Your task to perform on an android device: open app "Google Drive" (install if not already installed) Image 0: 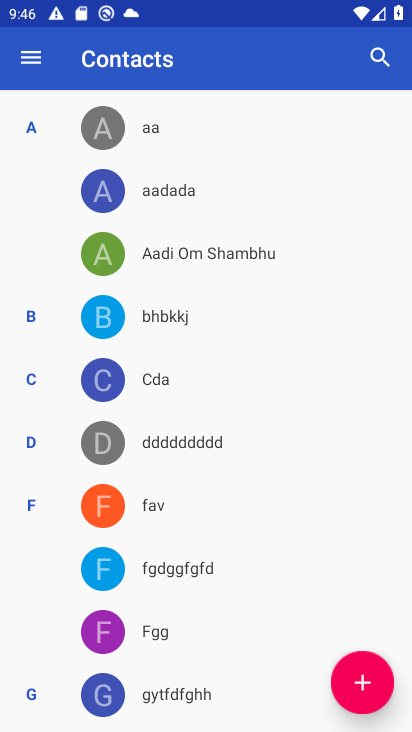
Step 0: press home button
Your task to perform on an android device: open app "Google Drive" (install if not already installed) Image 1: 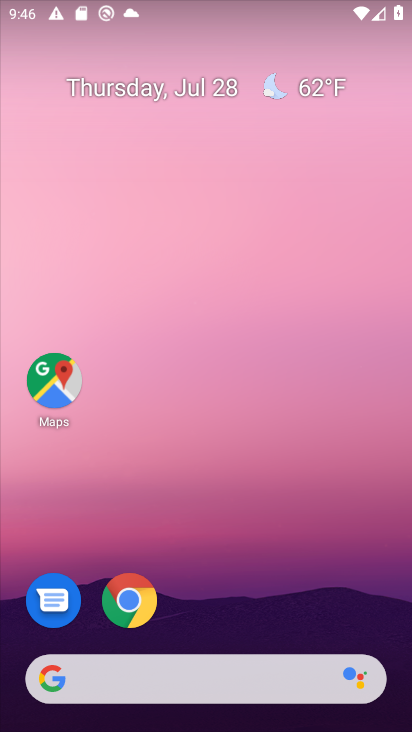
Step 1: drag from (264, 569) to (262, 11)
Your task to perform on an android device: open app "Google Drive" (install if not already installed) Image 2: 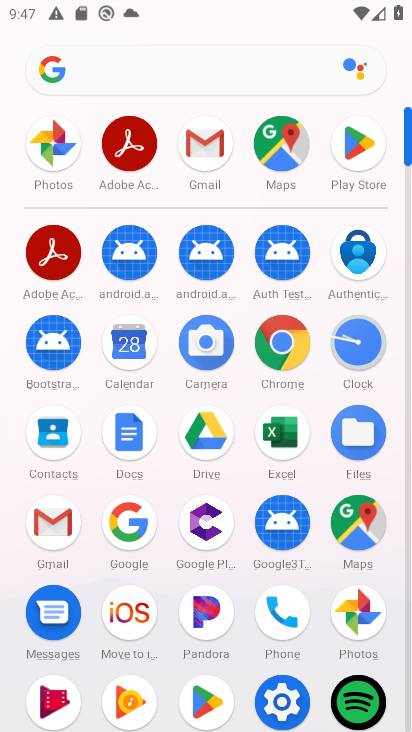
Step 2: click (344, 145)
Your task to perform on an android device: open app "Google Drive" (install if not already installed) Image 3: 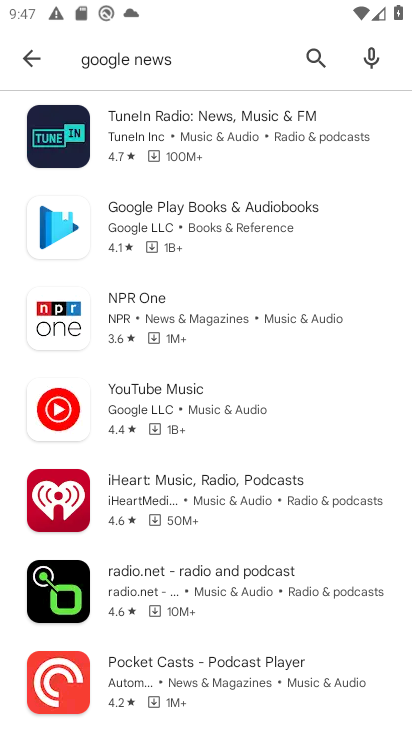
Step 3: click (313, 54)
Your task to perform on an android device: open app "Google Drive" (install if not already installed) Image 4: 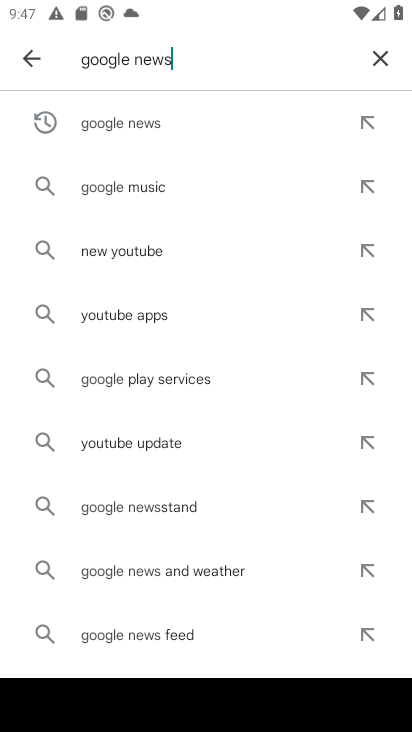
Step 4: click (383, 66)
Your task to perform on an android device: open app "Google Drive" (install if not already installed) Image 5: 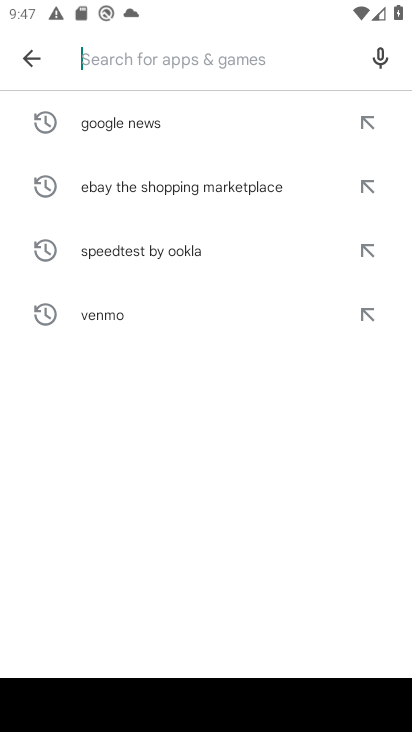
Step 5: click (171, 58)
Your task to perform on an android device: open app "Google Drive" (install if not already installed) Image 6: 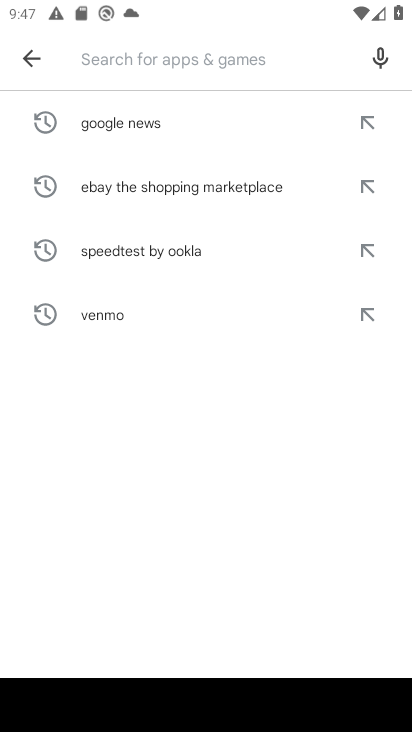
Step 6: type "Google Drive"
Your task to perform on an android device: open app "Google Drive" (install if not already installed) Image 7: 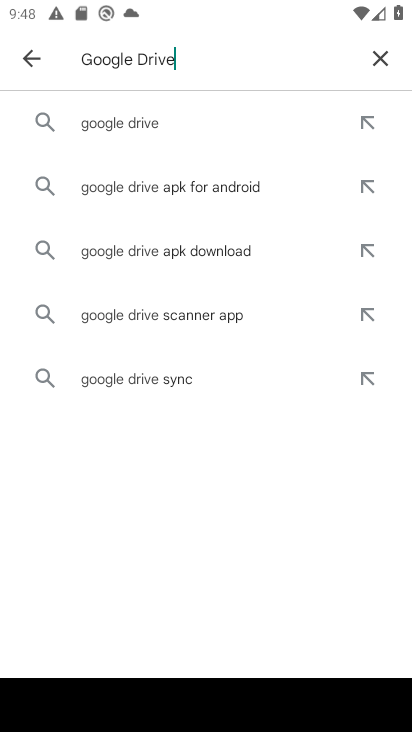
Step 7: click (129, 135)
Your task to perform on an android device: open app "Google Drive" (install if not already installed) Image 8: 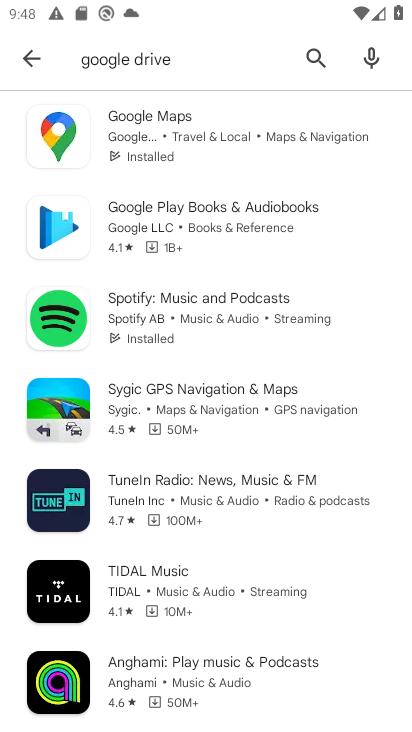
Step 8: task complete